Your task to perform on an android device: change alarm snooze length Image 0: 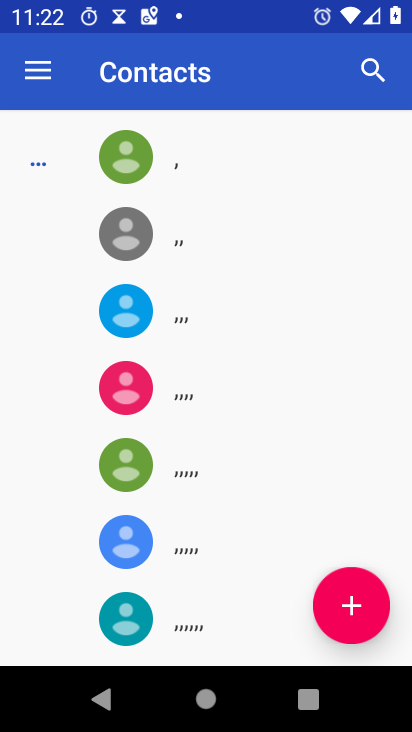
Step 0: press home button
Your task to perform on an android device: change alarm snooze length Image 1: 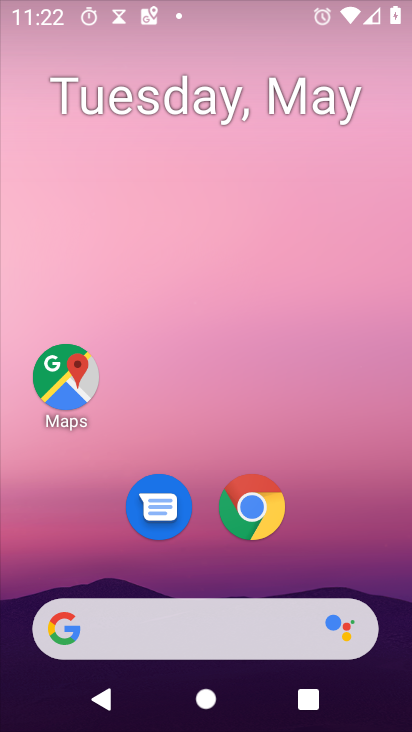
Step 1: drag from (60, 626) to (410, 120)
Your task to perform on an android device: change alarm snooze length Image 2: 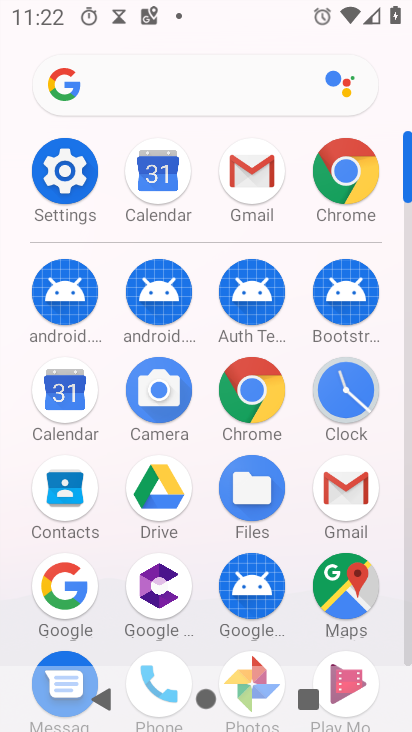
Step 2: click (338, 381)
Your task to perform on an android device: change alarm snooze length Image 3: 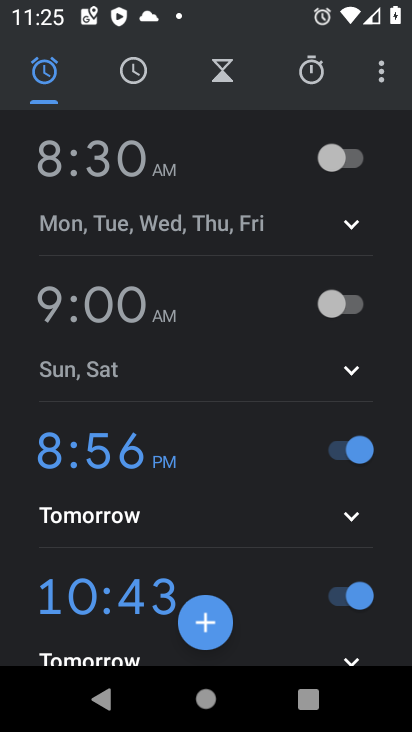
Step 3: task complete